Your task to perform on an android device: Open calendar and show me the second week of next month Image 0: 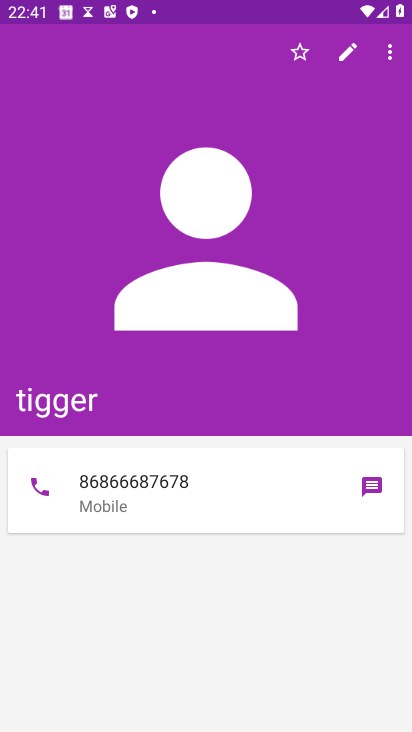
Step 0: press home button
Your task to perform on an android device: Open calendar and show me the second week of next month Image 1: 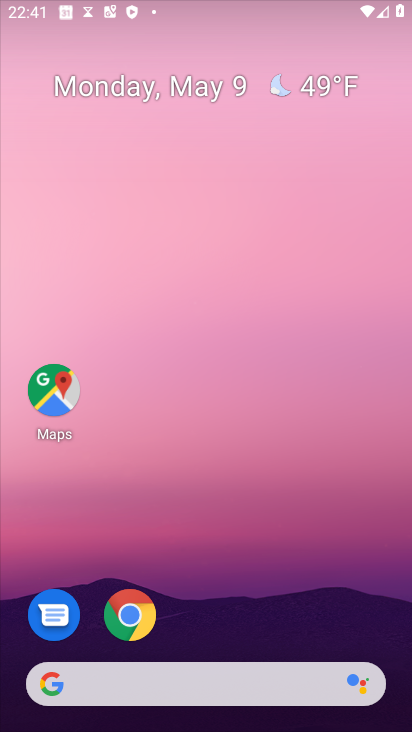
Step 1: drag from (295, 529) to (383, 94)
Your task to perform on an android device: Open calendar and show me the second week of next month Image 2: 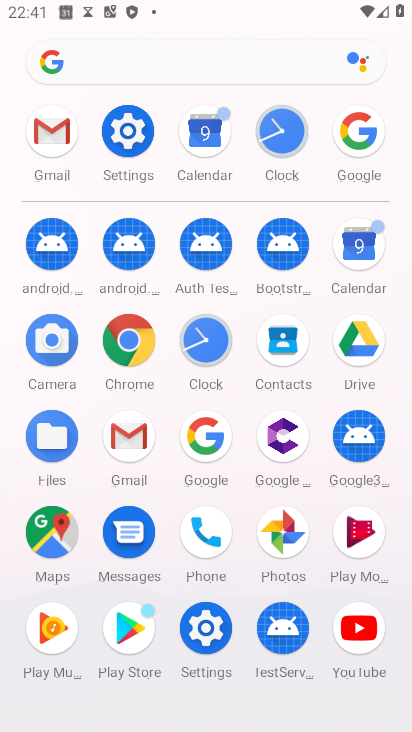
Step 2: click (374, 256)
Your task to perform on an android device: Open calendar and show me the second week of next month Image 3: 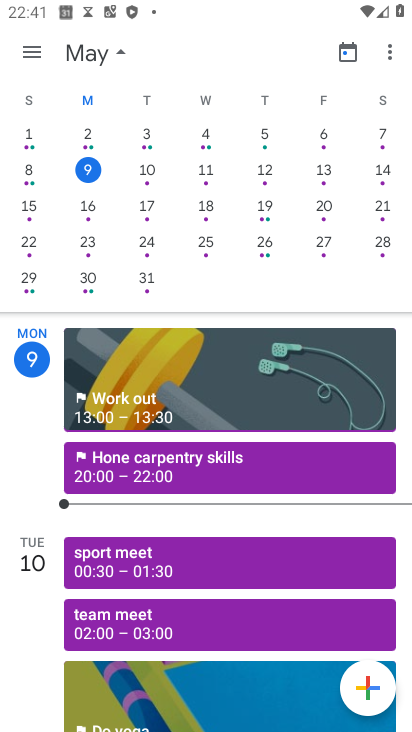
Step 3: drag from (359, 235) to (8, 233)
Your task to perform on an android device: Open calendar and show me the second week of next month Image 4: 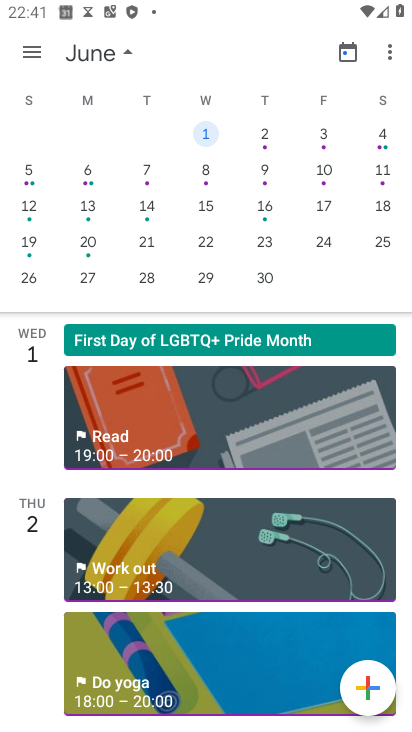
Step 4: click (23, 181)
Your task to perform on an android device: Open calendar and show me the second week of next month Image 5: 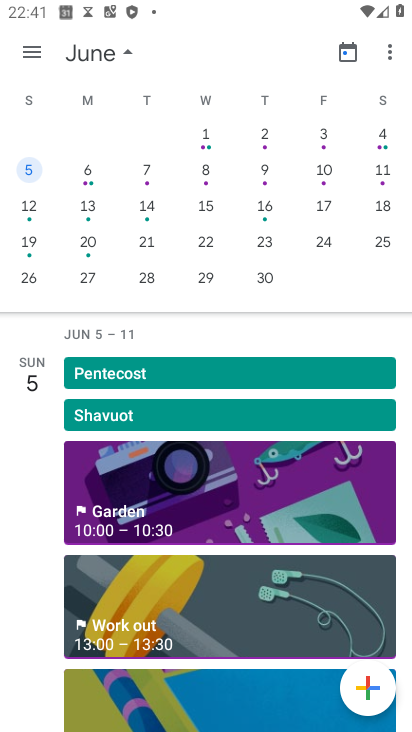
Step 5: click (89, 188)
Your task to perform on an android device: Open calendar and show me the second week of next month Image 6: 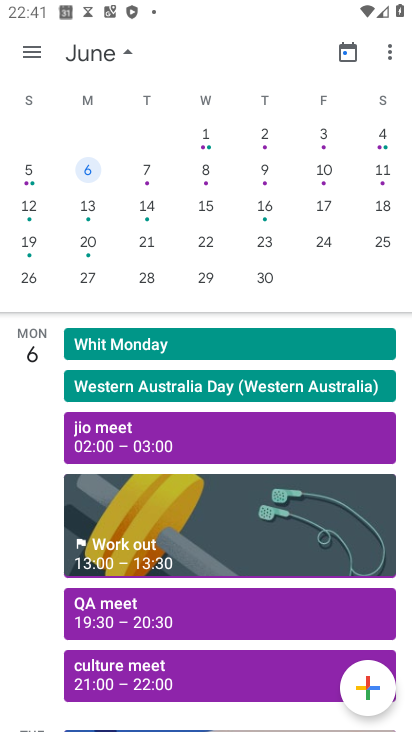
Step 6: click (151, 181)
Your task to perform on an android device: Open calendar and show me the second week of next month Image 7: 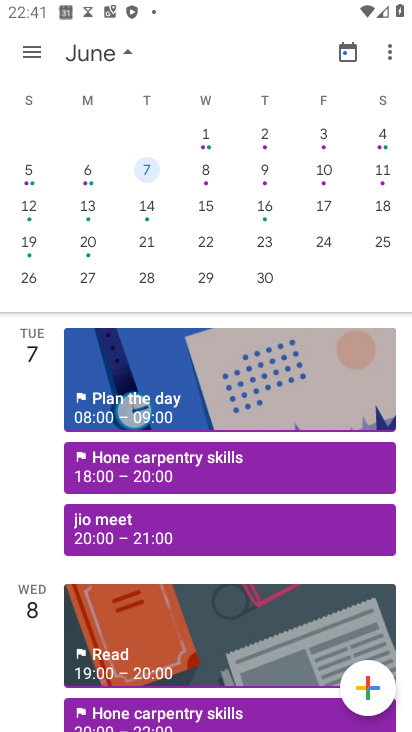
Step 7: click (211, 184)
Your task to perform on an android device: Open calendar and show me the second week of next month Image 8: 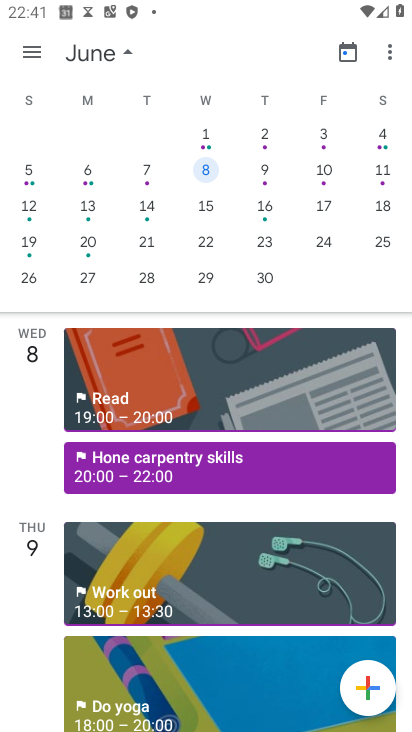
Step 8: click (270, 179)
Your task to perform on an android device: Open calendar and show me the second week of next month Image 9: 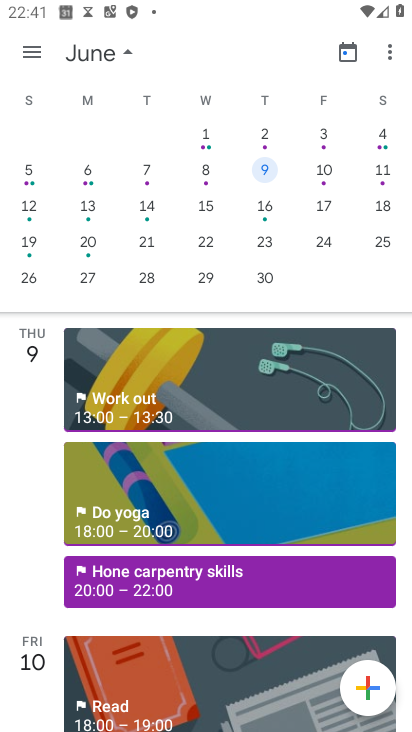
Step 9: click (333, 179)
Your task to perform on an android device: Open calendar and show me the second week of next month Image 10: 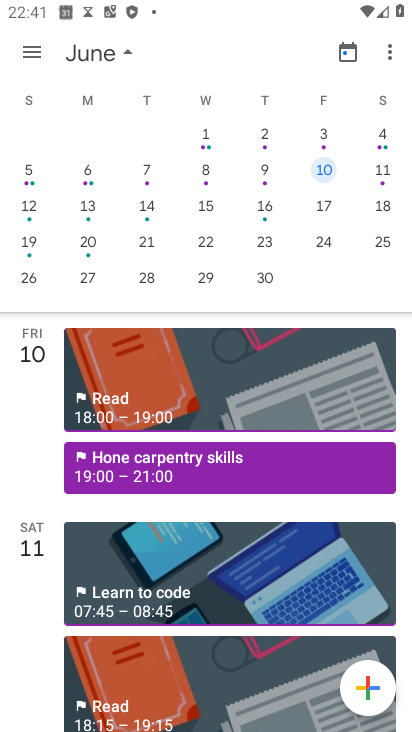
Step 10: click (365, 179)
Your task to perform on an android device: Open calendar and show me the second week of next month Image 11: 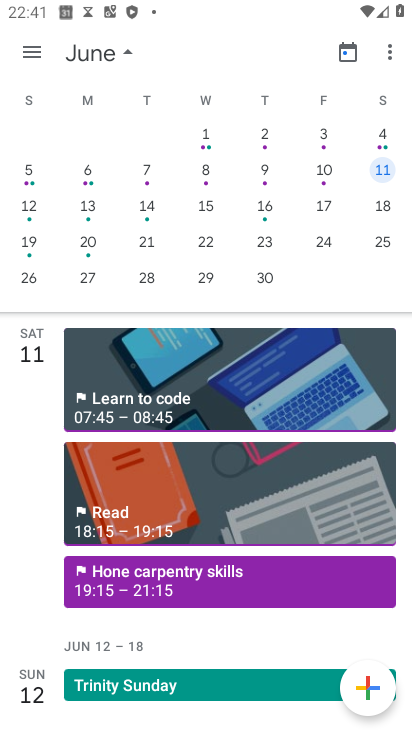
Step 11: click (393, 183)
Your task to perform on an android device: Open calendar and show me the second week of next month Image 12: 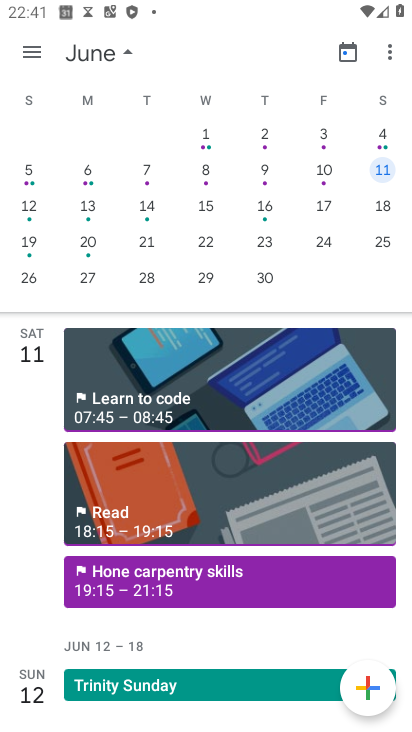
Step 12: task complete